Your task to perform on an android device: open app "Microsoft Outlook" (install if not already installed) Image 0: 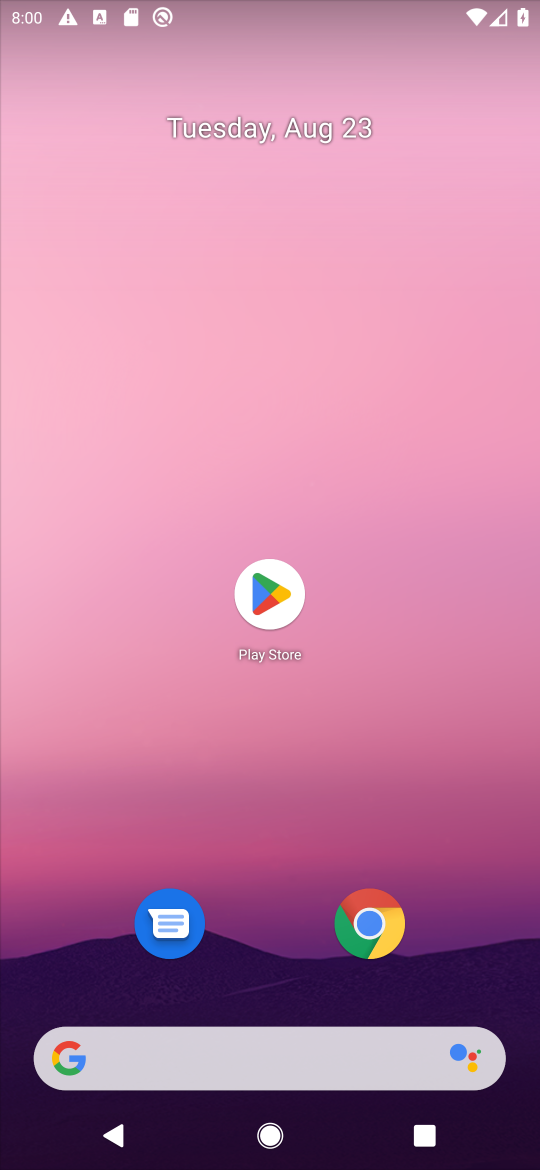
Step 0: click (280, 586)
Your task to perform on an android device: open app "Microsoft Outlook" (install if not already installed) Image 1: 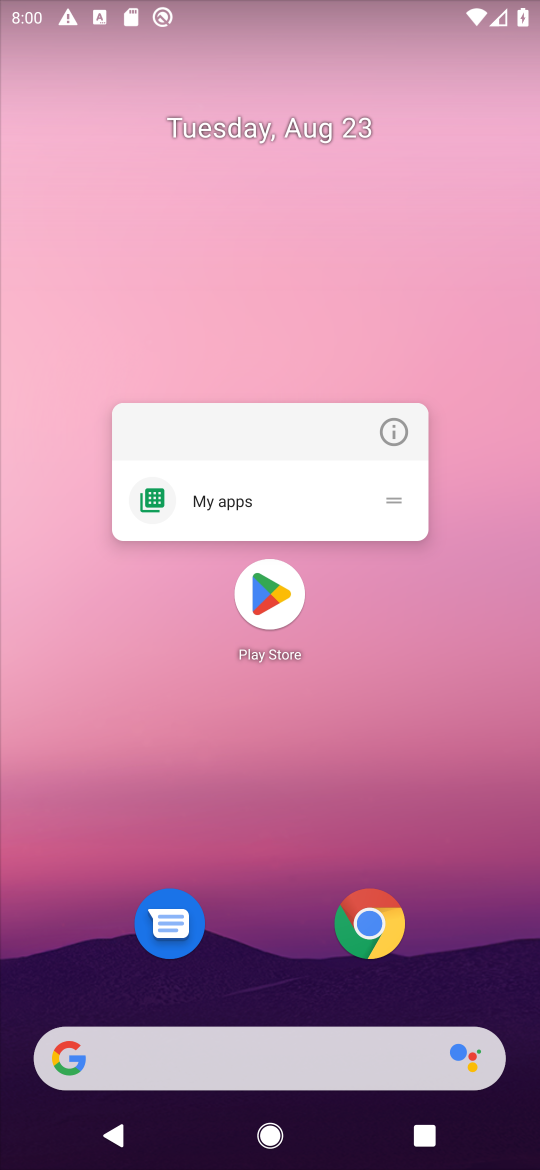
Step 1: click (274, 590)
Your task to perform on an android device: open app "Microsoft Outlook" (install if not already installed) Image 2: 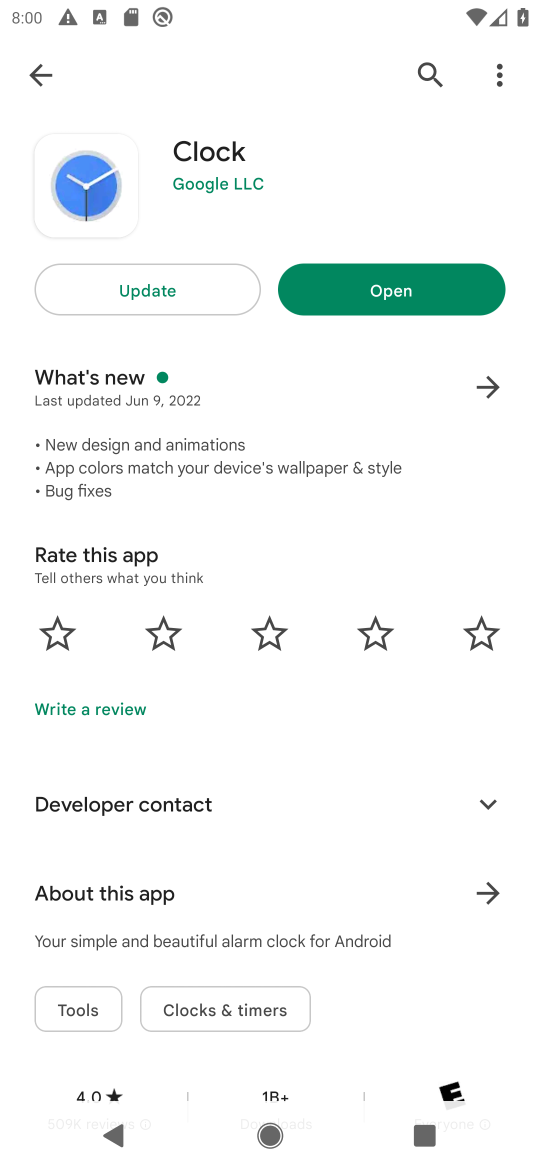
Step 2: click (431, 81)
Your task to perform on an android device: open app "Microsoft Outlook" (install if not already installed) Image 3: 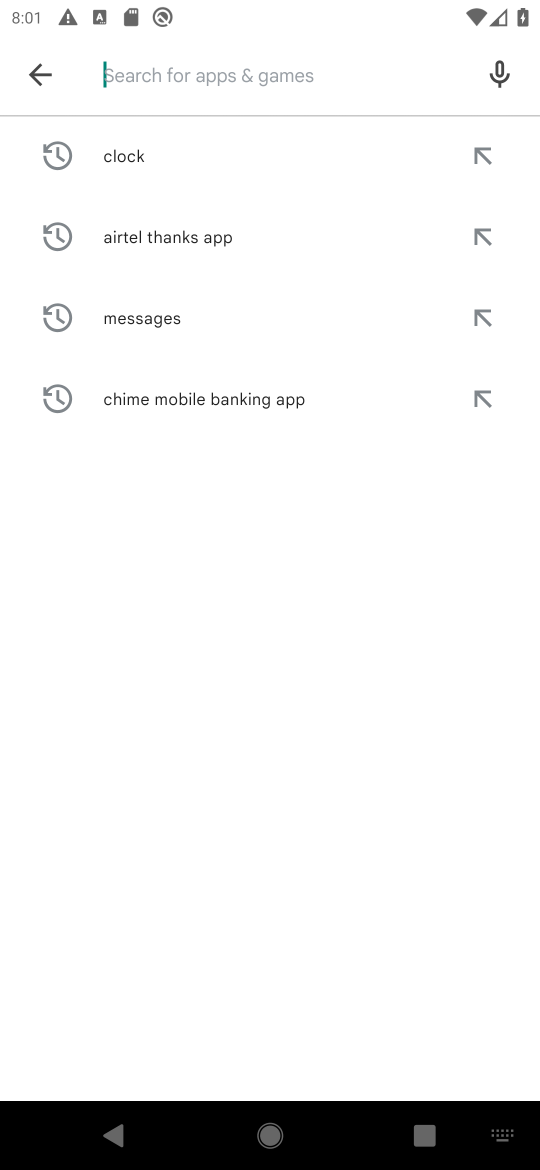
Step 3: type "Microsoft Outlook"
Your task to perform on an android device: open app "Microsoft Outlook" (install if not already installed) Image 4: 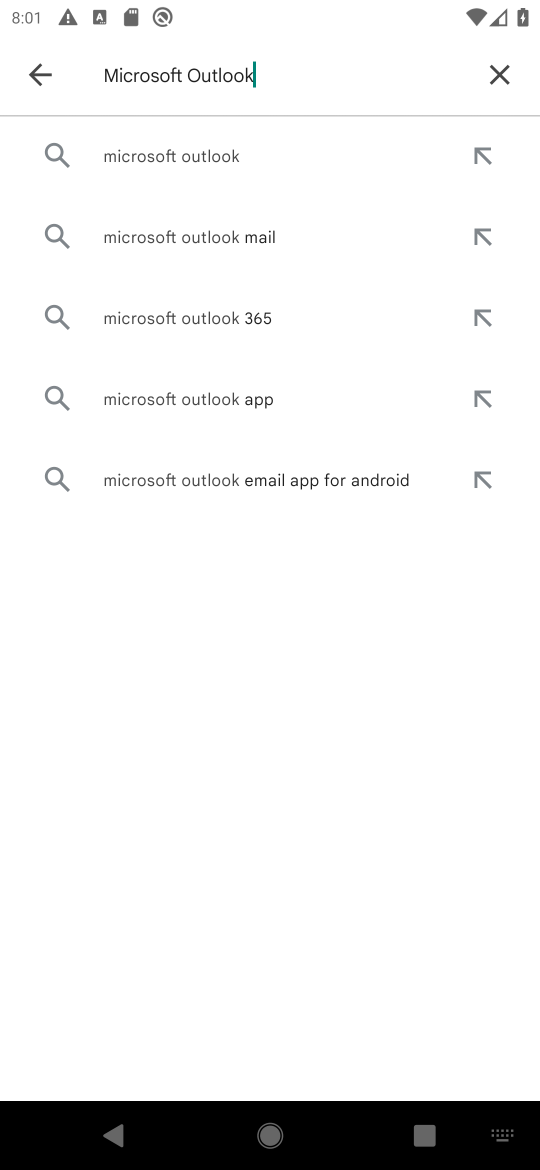
Step 4: click (218, 147)
Your task to perform on an android device: open app "Microsoft Outlook" (install if not already installed) Image 5: 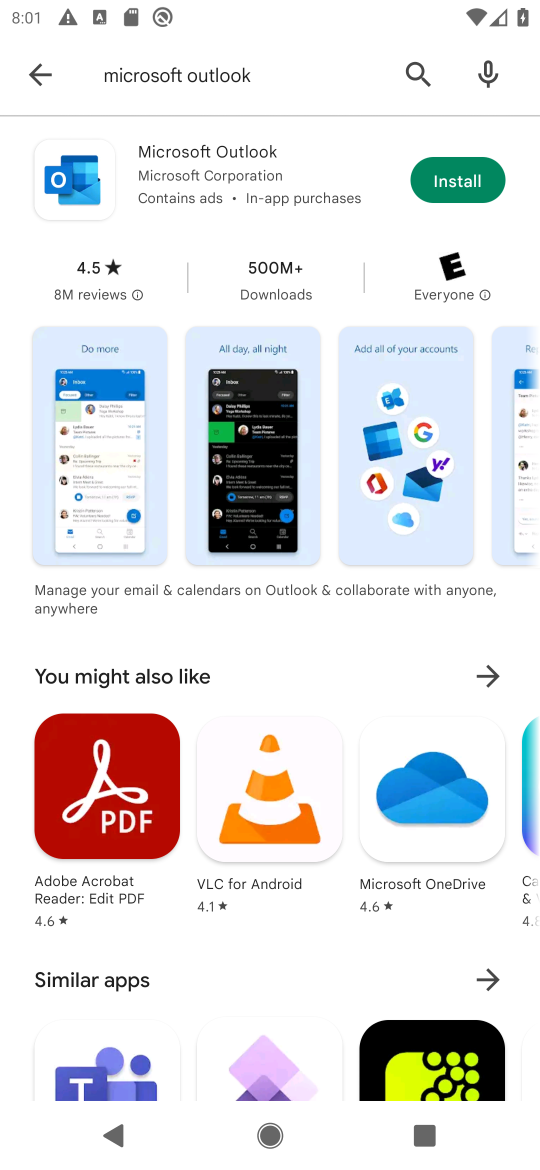
Step 5: click (438, 188)
Your task to perform on an android device: open app "Microsoft Outlook" (install if not already installed) Image 6: 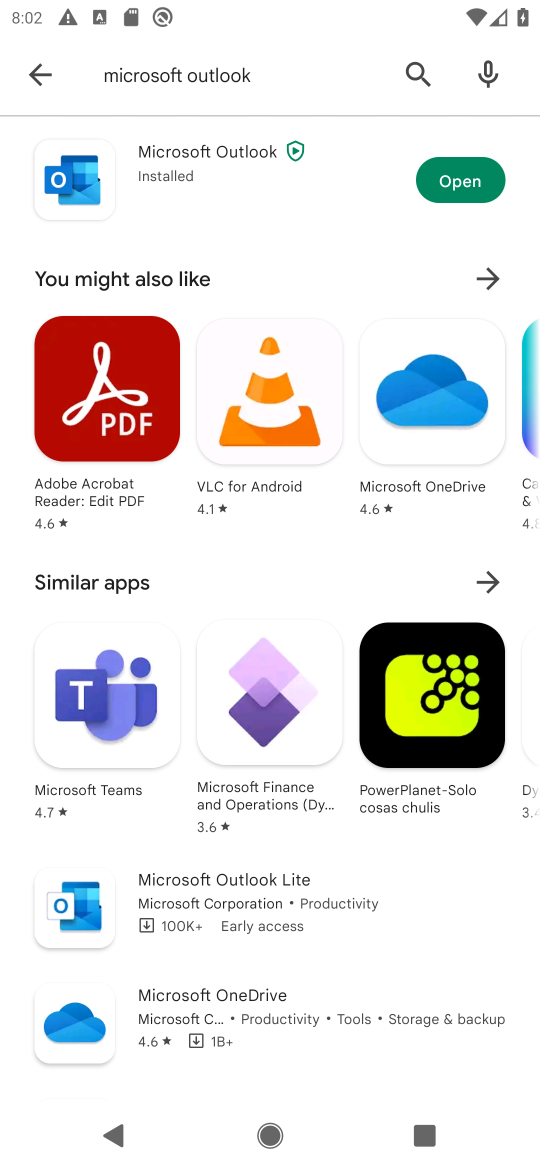
Step 6: click (467, 184)
Your task to perform on an android device: open app "Microsoft Outlook" (install if not already installed) Image 7: 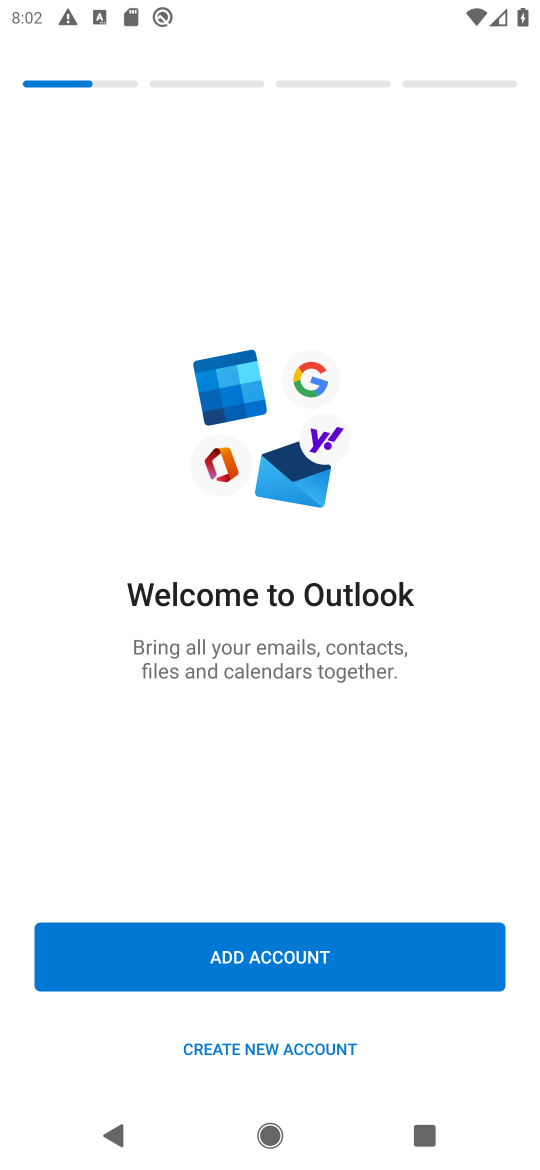
Step 7: task complete